Your task to perform on an android device: toggle priority inbox in the gmail app Image 0: 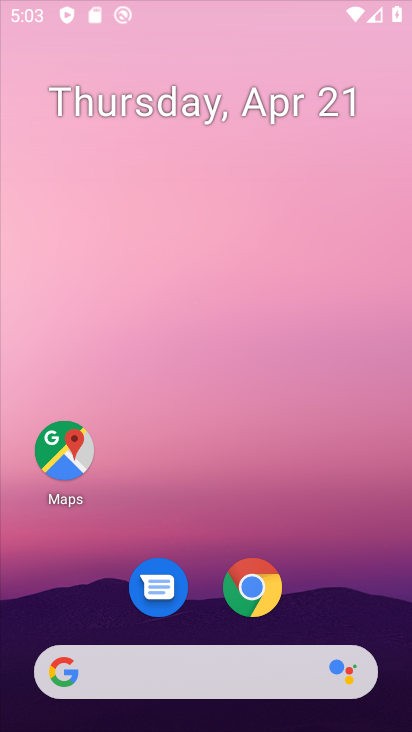
Step 0: drag from (206, 597) to (247, 0)
Your task to perform on an android device: toggle priority inbox in the gmail app Image 1: 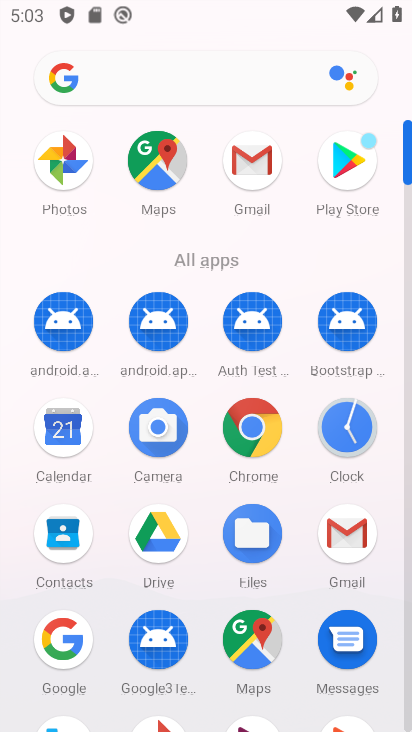
Step 1: drag from (108, 598) to (125, 63)
Your task to perform on an android device: toggle priority inbox in the gmail app Image 2: 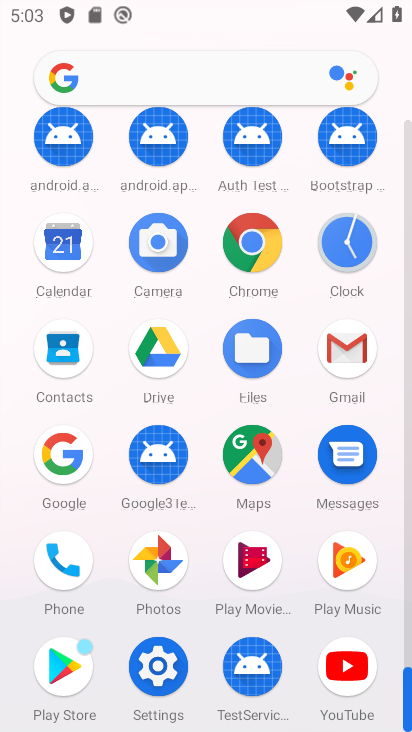
Step 2: click (350, 335)
Your task to perform on an android device: toggle priority inbox in the gmail app Image 3: 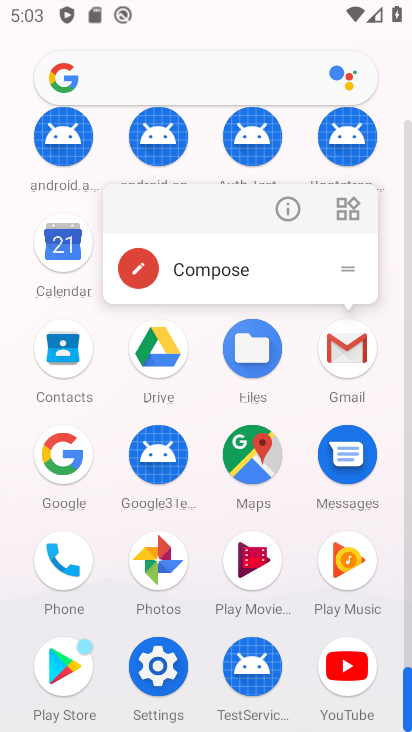
Step 3: click (347, 336)
Your task to perform on an android device: toggle priority inbox in the gmail app Image 4: 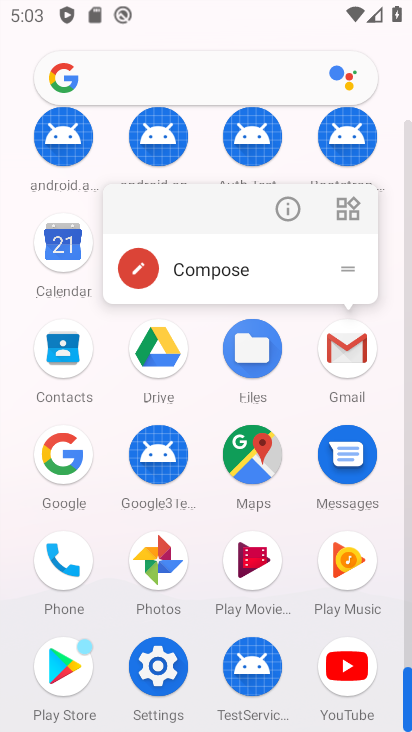
Step 4: click (341, 346)
Your task to perform on an android device: toggle priority inbox in the gmail app Image 5: 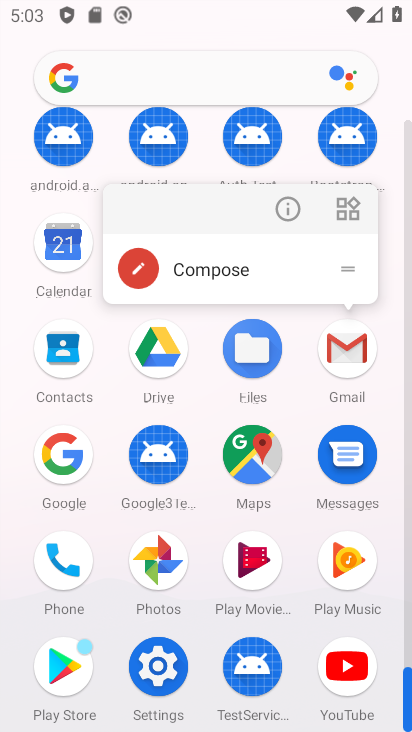
Step 5: click (296, 396)
Your task to perform on an android device: toggle priority inbox in the gmail app Image 6: 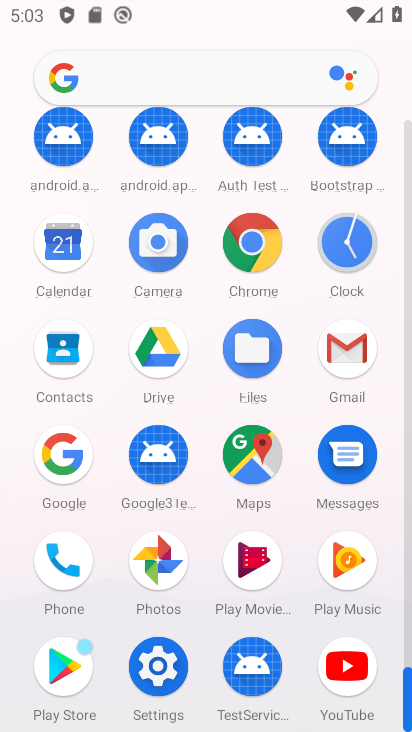
Step 6: click (344, 340)
Your task to perform on an android device: toggle priority inbox in the gmail app Image 7: 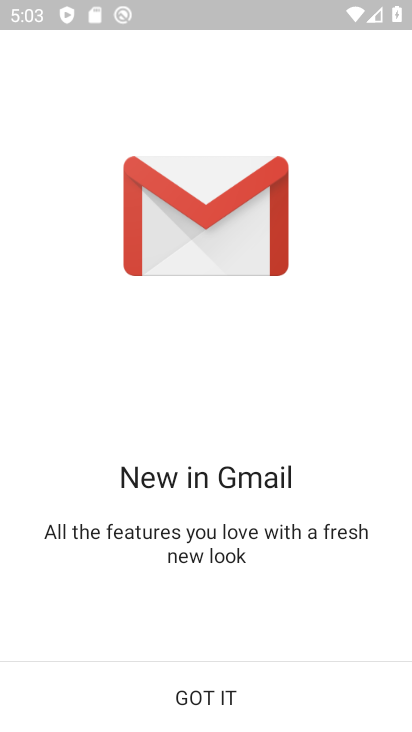
Step 7: click (207, 710)
Your task to perform on an android device: toggle priority inbox in the gmail app Image 8: 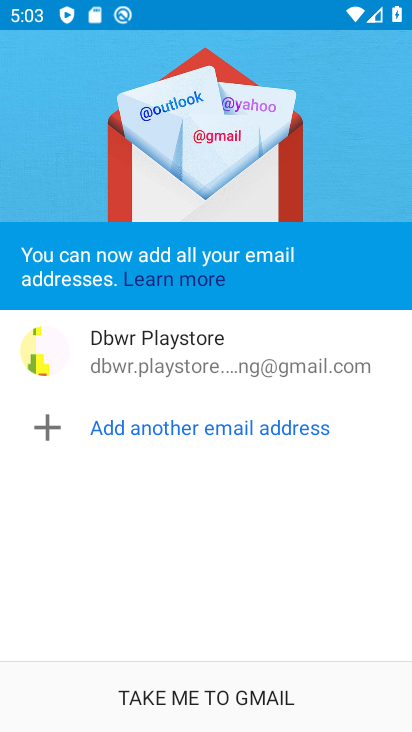
Step 8: click (204, 710)
Your task to perform on an android device: toggle priority inbox in the gmail app Image 9: 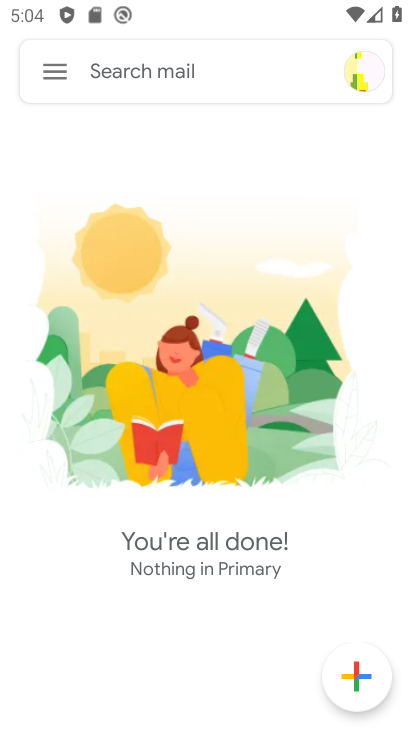
Step 9: click (53, 73)
Your task to perform on an android device: toggle priority inbox in the gmail app Image 10: 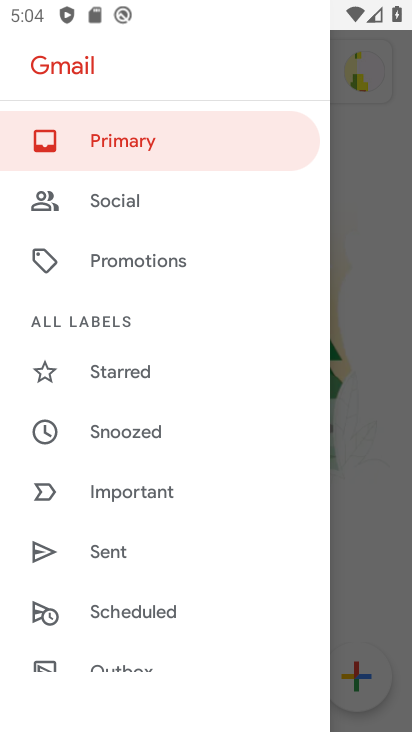
Step 10: drag from (127, 598) to (131, 92)
Your task to perform on an android device: toggle priority inbox in the gmail app Image 11: 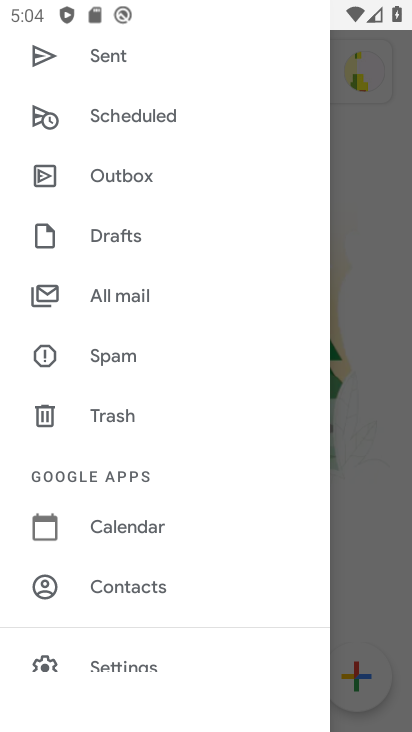
Step 11: drag from (163, 639) to (135, 134)
Your task to perform on an android device: toggle priority inbox in the gmail app Image 12: 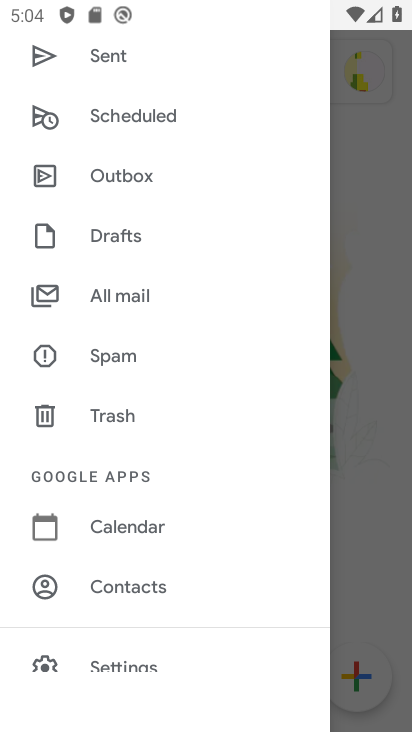
Step 12: drag from (116, 576) to (165, 49)
Your task to perform on an android device: toggle priority inbox in the gmail app Image 13: 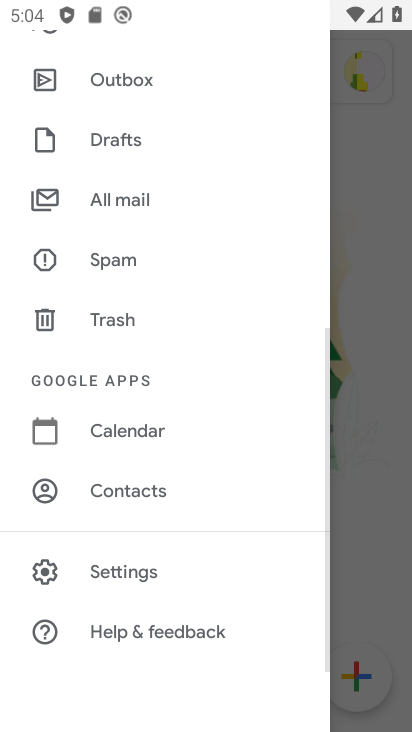
Step 13: click (171, 572)
Your task to perform on an android device: toggle priority inbox in the gmail app Image 14: 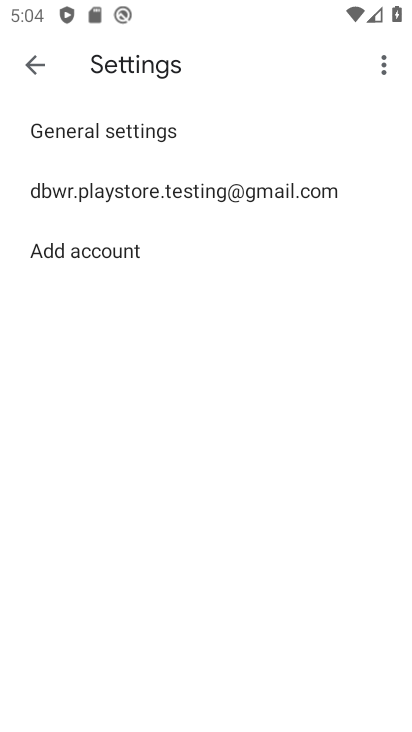
Step 14: click (190, 125)
Your task to perform on an android device: toggle priority inbox in the gmail app Image 15: 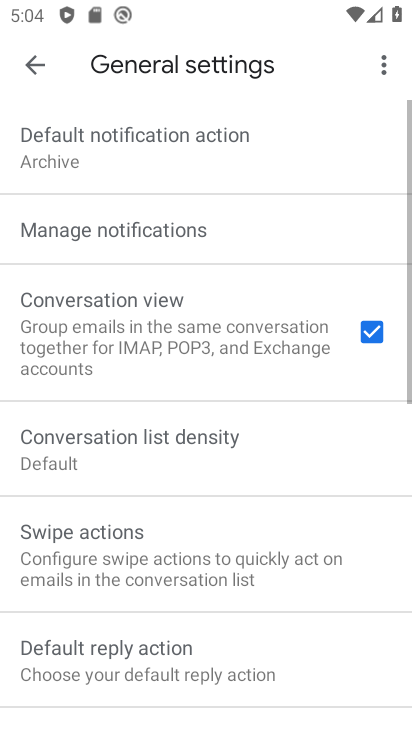
Step 15: click (41, 63)
Your task to perform on an android device: toggle priority inbox in the gmail app Image 16: 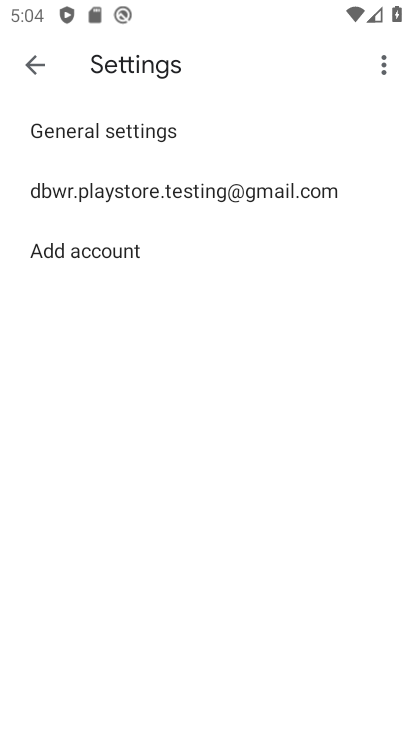
Step 16: click (202, 190)
Your task to perform on an android device: toggle priority inbox in the gmail app Image 17: 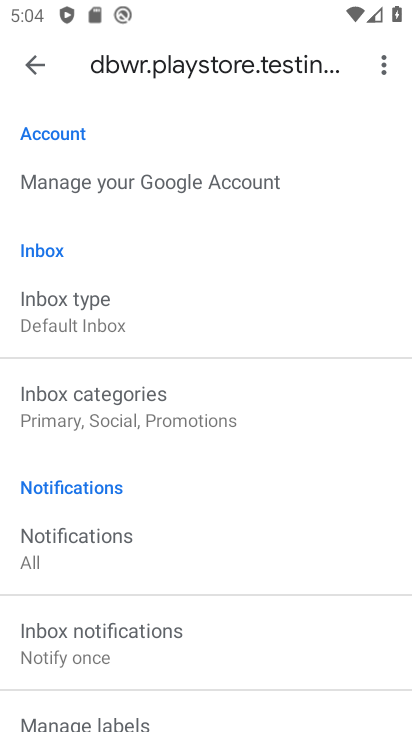
Step 17: click (191, 402)
Your task to perform on an android device: toggle priority inbox in the gmail app Image 18: 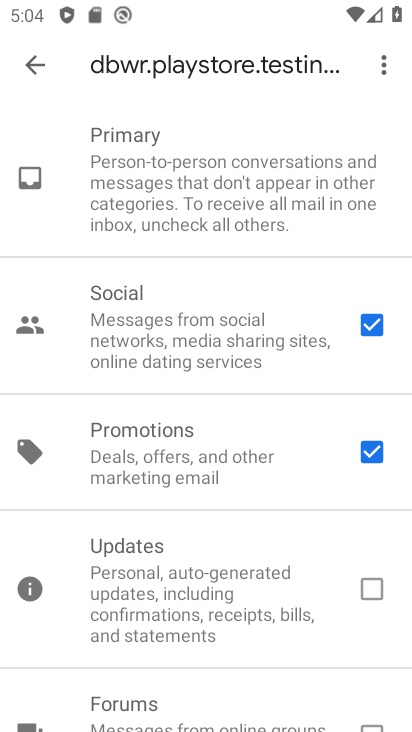
Step 18: click (42, 52)
Your task to perform on an android device: toggle priority inbox in the gmail app Image 19: 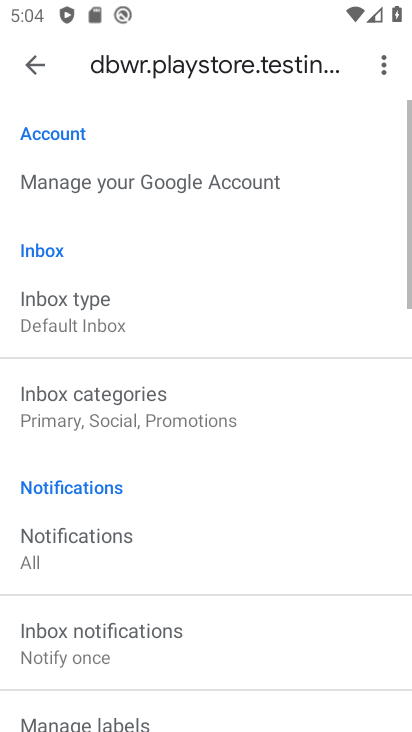
Step 19: drag from (128, 259) to (159, 526)
Your task to perform on an android device: toggle priority inbox in the gmail app Image 20: 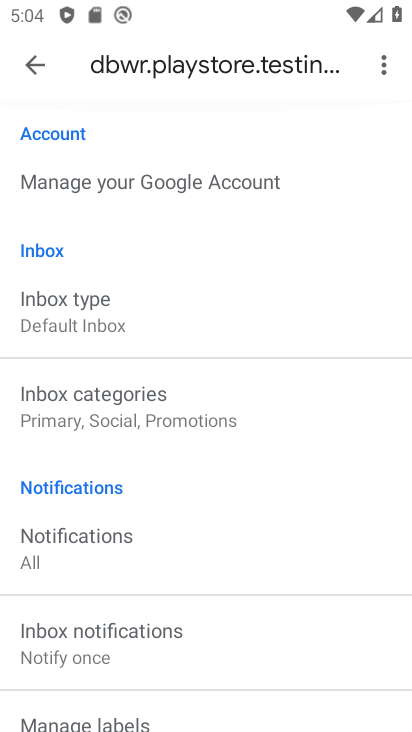
Step 20: click (128, 309)
Your task to perform on an android device: toggle priority inbox in the gmail app Image 21: 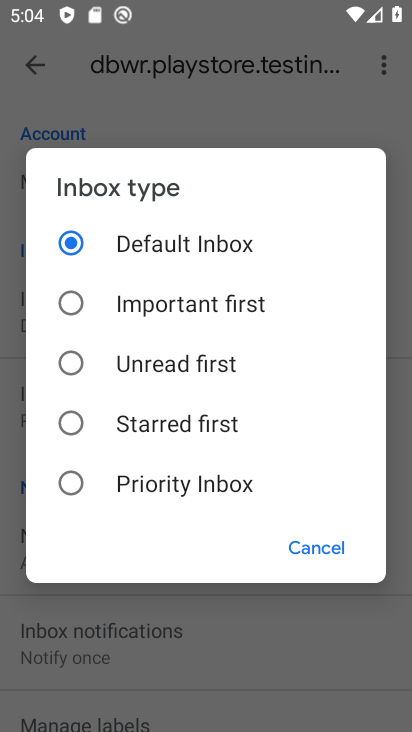
Step 21: click (70, 483)
Your task to perform on an android device: toggle priority inbox in the gmail app Image 22: 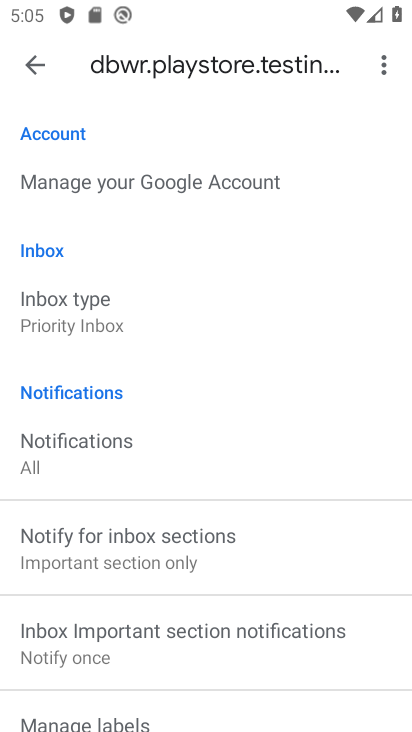
Step 22: task complete